Your task to perform on an android device: check storage Image 0: 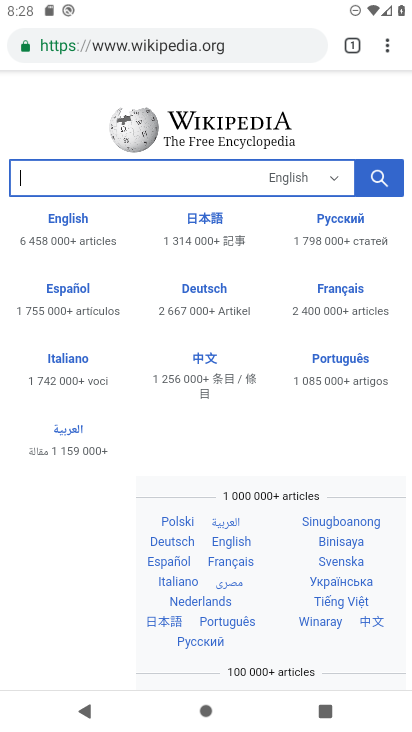
Step 0: press home button
Your task to perform on an android device: check storage Image 1: 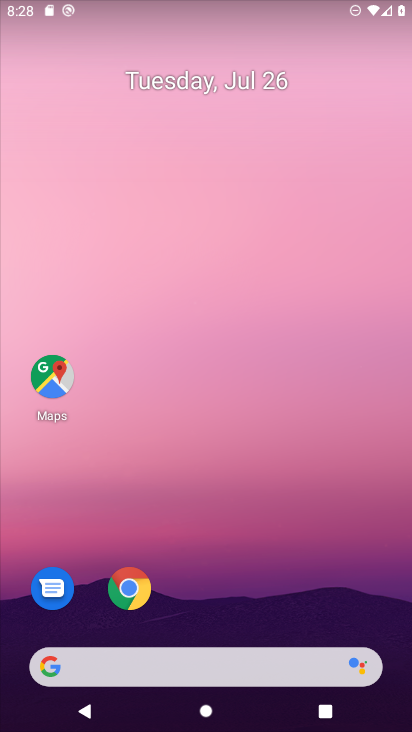
Step 1: drag from (219, 644) to (218, 10)
Your task to perform on an android device: check storage Image 2: 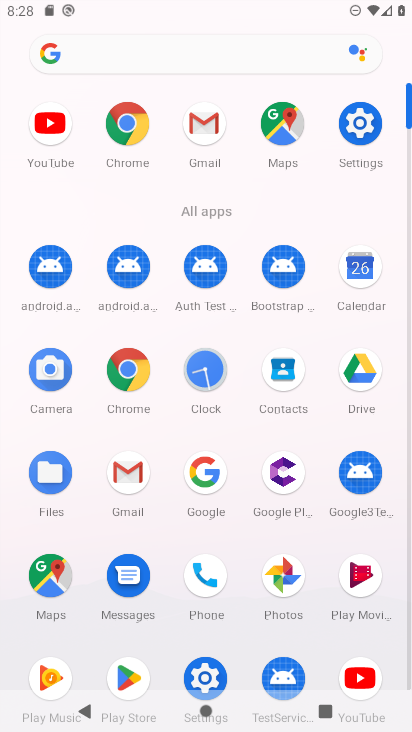
Step 2: click (357, 129)
Your task to perform on an android device: check storage Image 3: 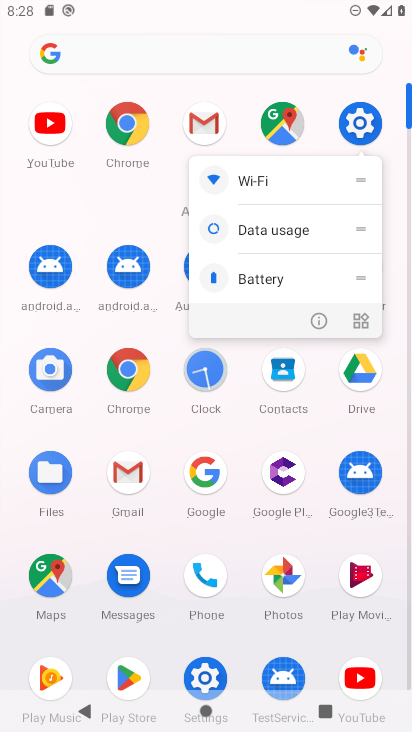
Step 3: click (357, 129)
Your task to perform on an android device: check storage Image 4: 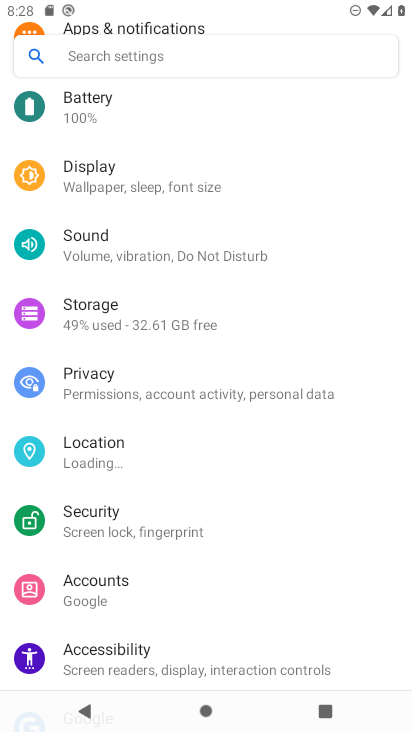
Step 4: click (107, 307)
Your task to perform on an android device: check storage Image 5: 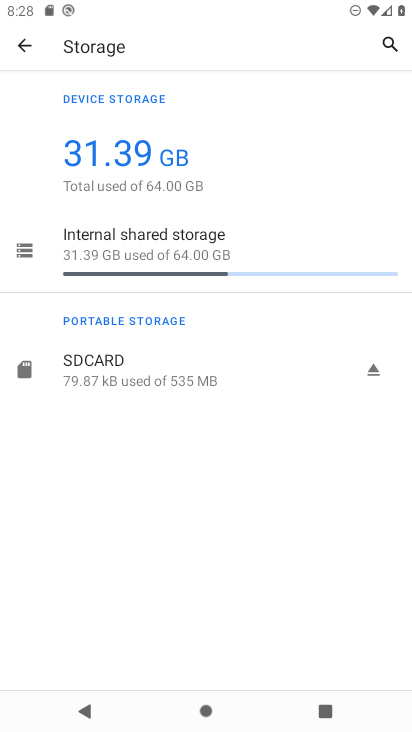
Step 5: task complete